Your task to perform on an android device: What's the weather today? Image 0: 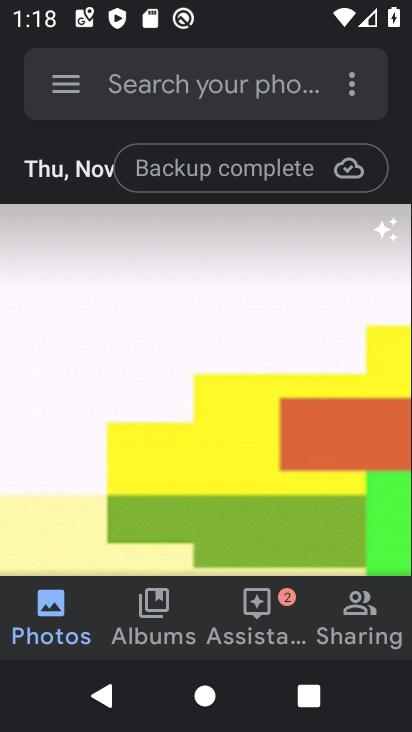
Step 0: press home button
Your task to perform on an android device: What's the weather today? Image 1: 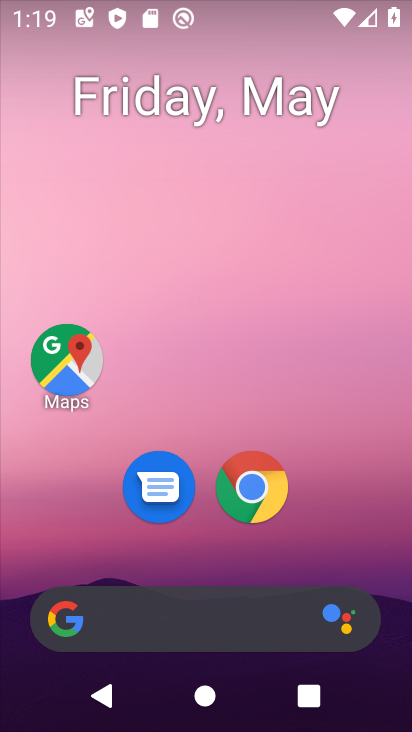
Step 1: click (223, 629)
Your task to perform on an android device: What's the weather today? Image 2: 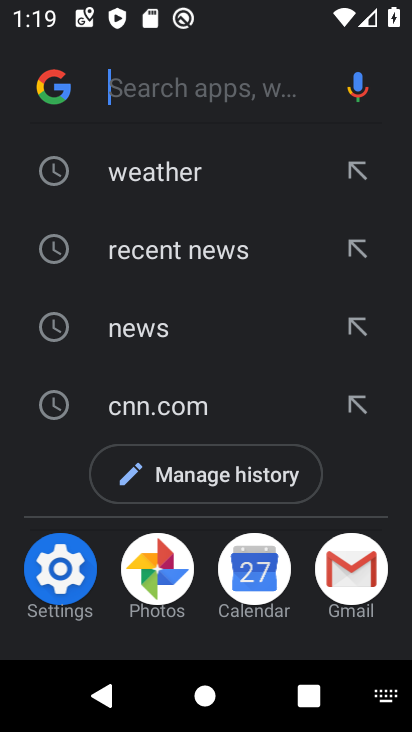
Step 2: click (222, 178)
Your task to perform on an android device: What's the weather today? Image 3: 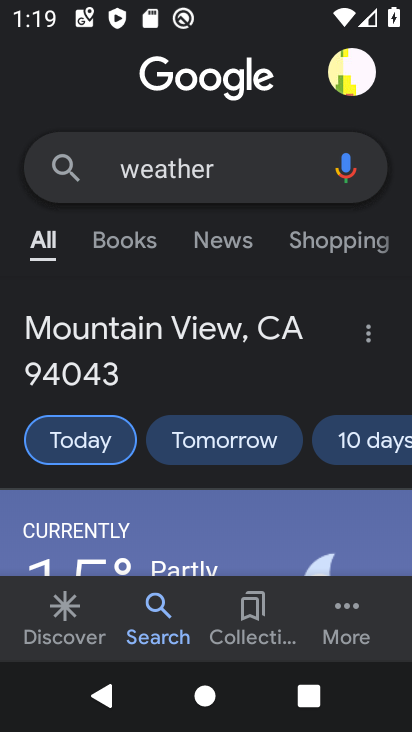
Step 3: task complete